Your task to perform on an android device: clear history in the chrome app Image 0: 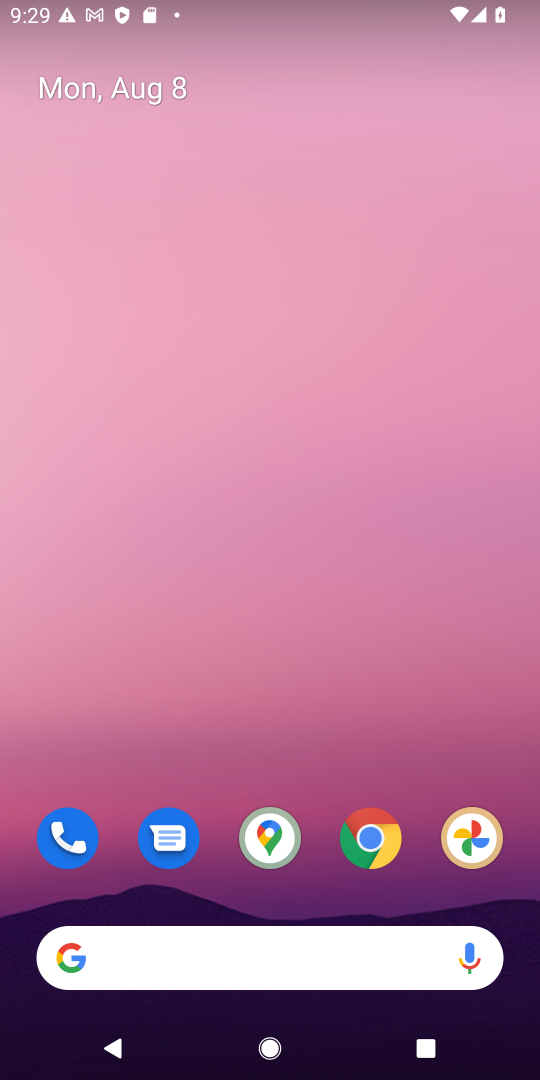
Step 0: drag from (420, 881) to (507, 217)
Your task to perform on an android device: clear history in the chrome app Image 1: 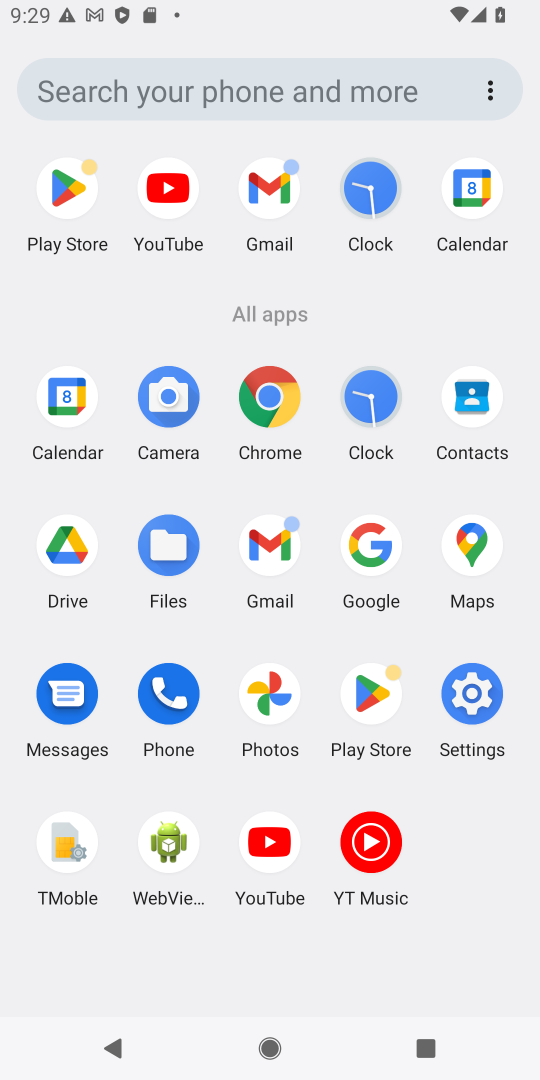
Step 1: click (266, 399)
Your task to perform on an android device: clear history in the chrome app Image 2: 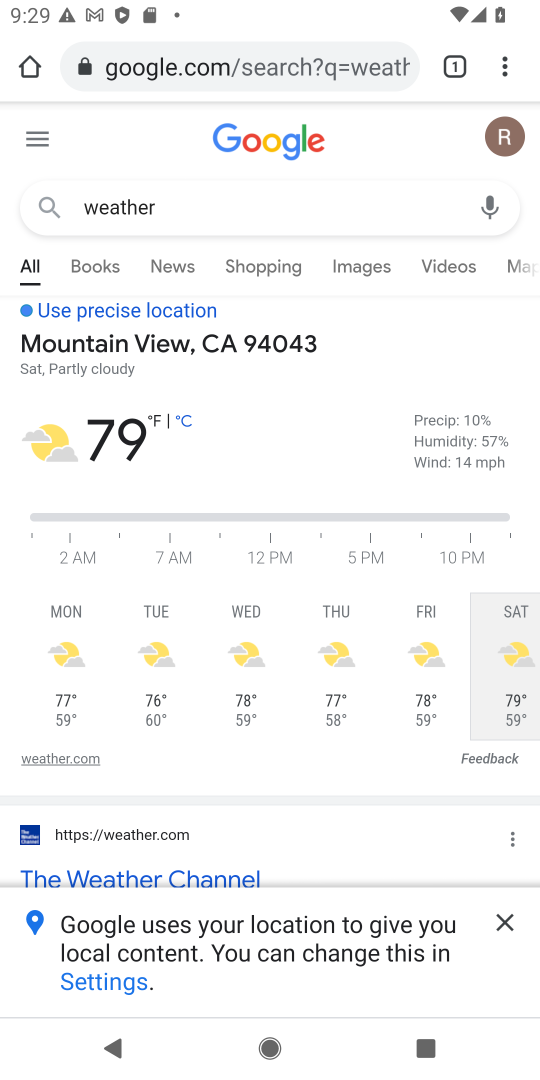
Step 2: drag from (503, 55) to (349, 280)
Your task to perform on an android device: clear history in the chrome app Image 3: 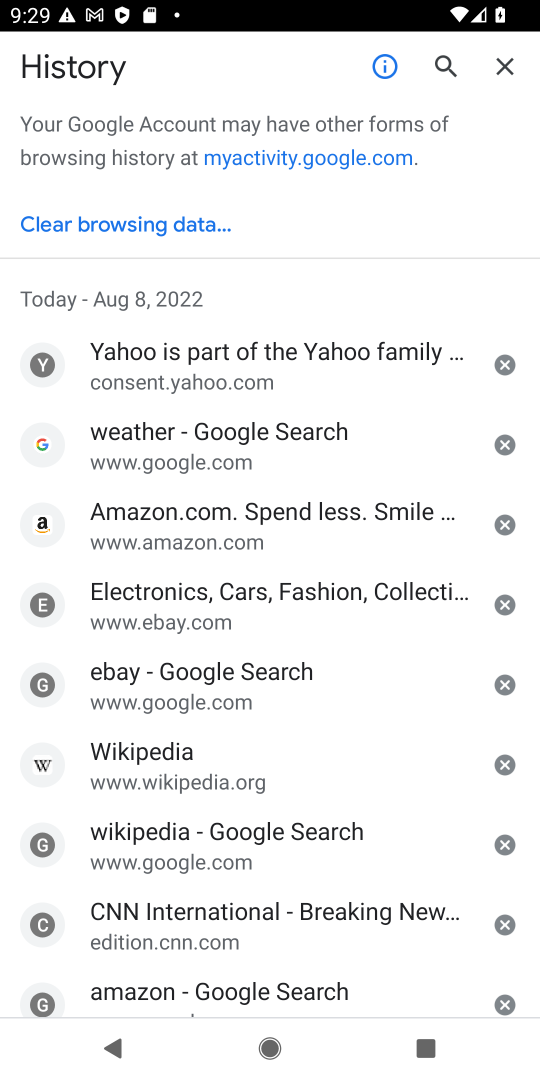
Step 3: click (137, 226)
Your task to perform on an android device: clear history in the chrome app Image 4: 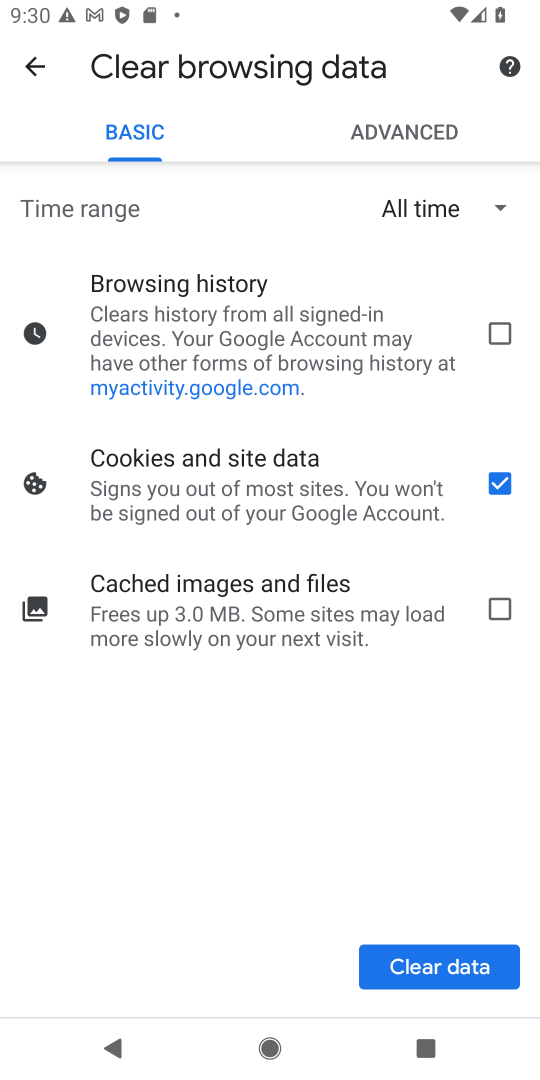
Step 4: click (497, 328)
Your task to perform on an android device: clear history in the chrome app Image 5: 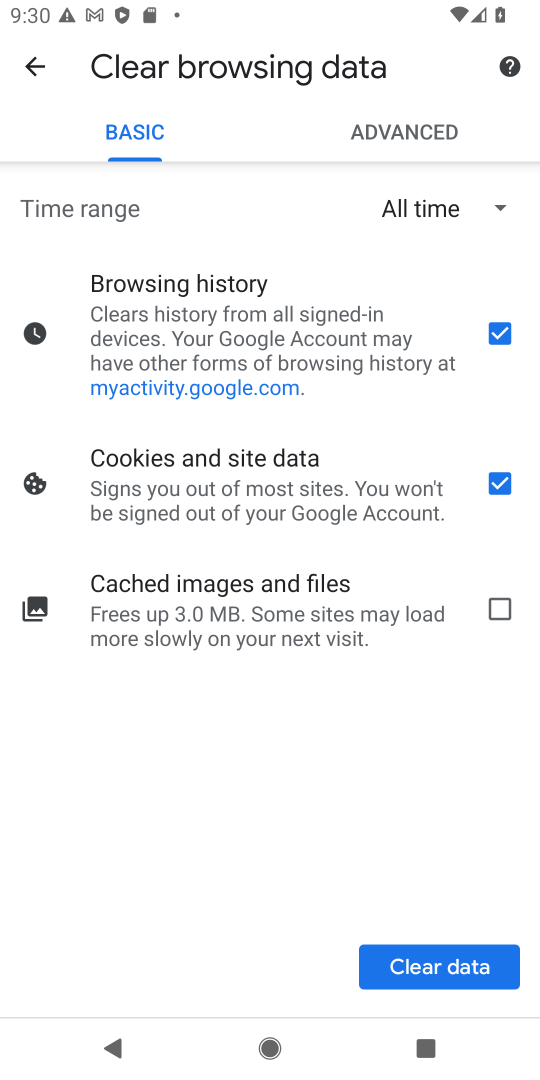
Step 5: click (463, 961)
Your task to perform on an android device: clear history in the chrome app Image 6: 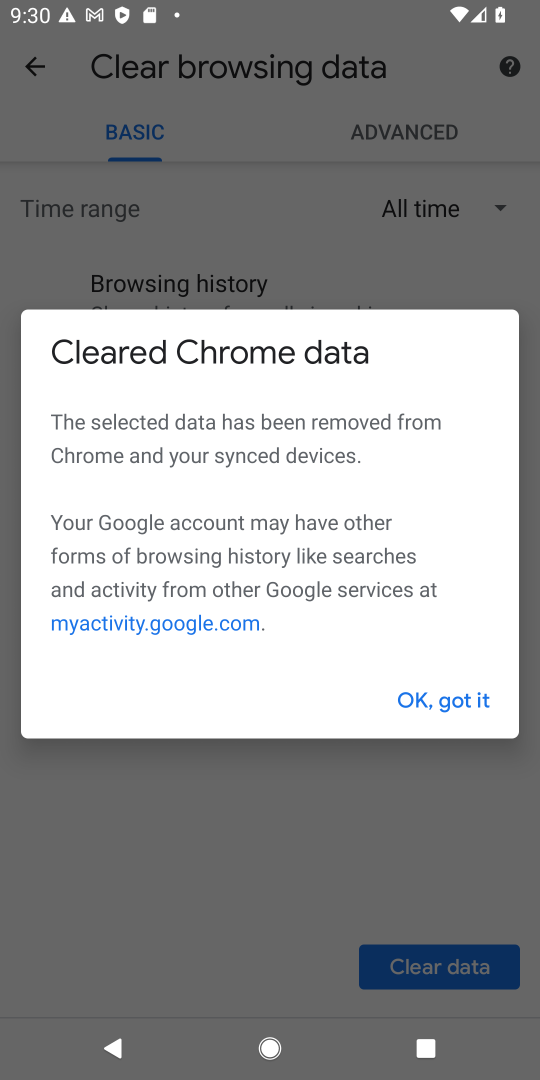
Step 6: click (454, 696)
Your task to perform on an android device: clear history in the chrome app Image 7: 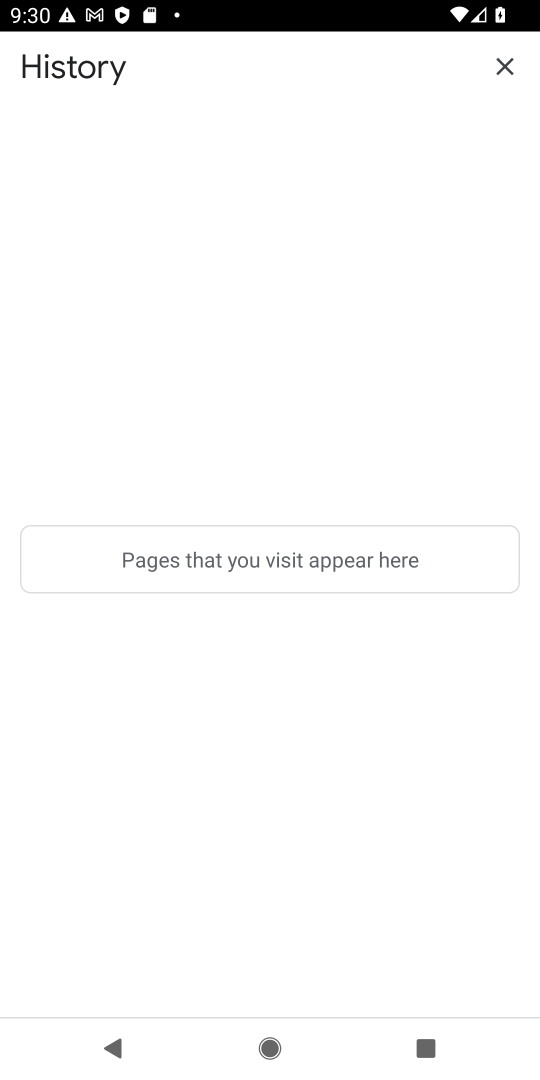
Step 7: task complete